Your task to perform on an android device: Go to wifi settings Image 0: 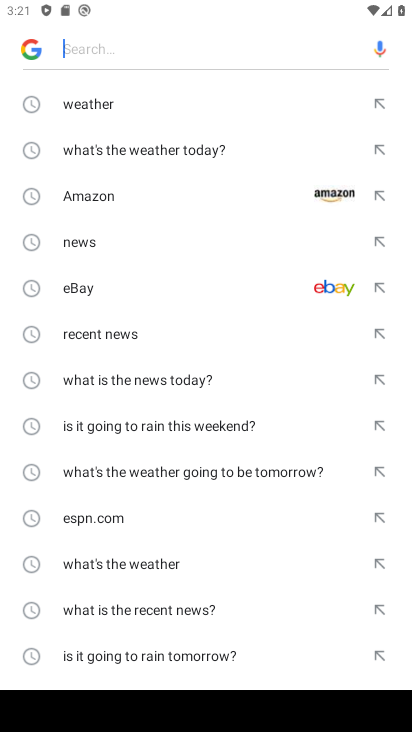
Step 0: press home button
Your task to perform on an android device: Go to wifi settings Image 1: 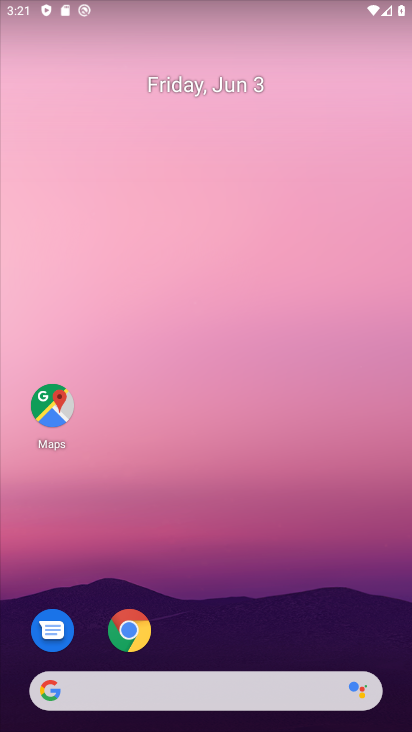
Step 1: drag from (249, 709) to (99, 86)
Your task to perform on an android device: Go to wifi settings Image 2: 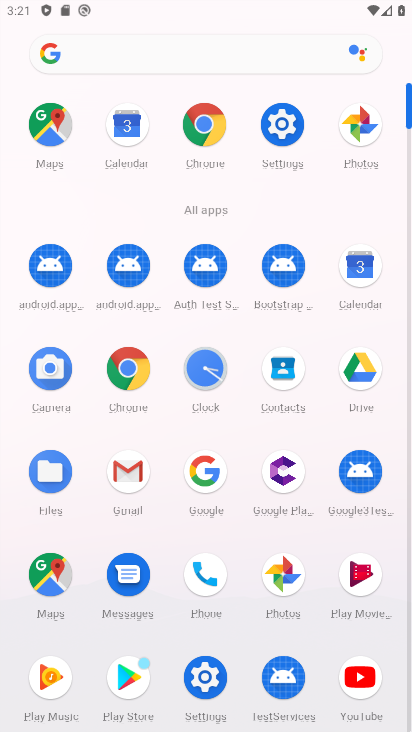
Step 2: click (271, 121)
Your task to perform on an android device: Go to wifi settings Image 3: 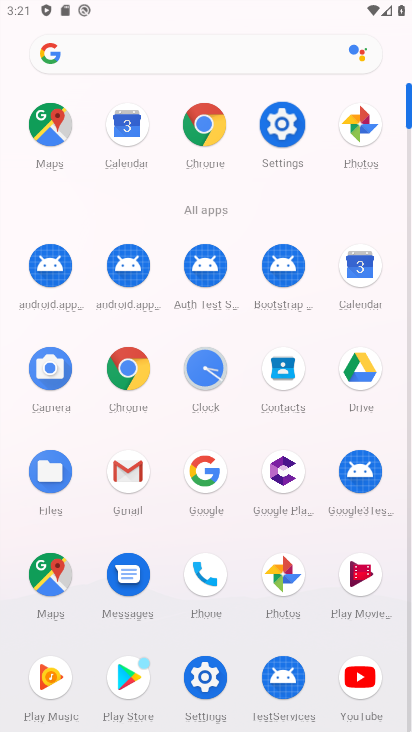
Step 3: click (271, 121)
Your task to perform on an android device: Go to wifi settings Image 4: 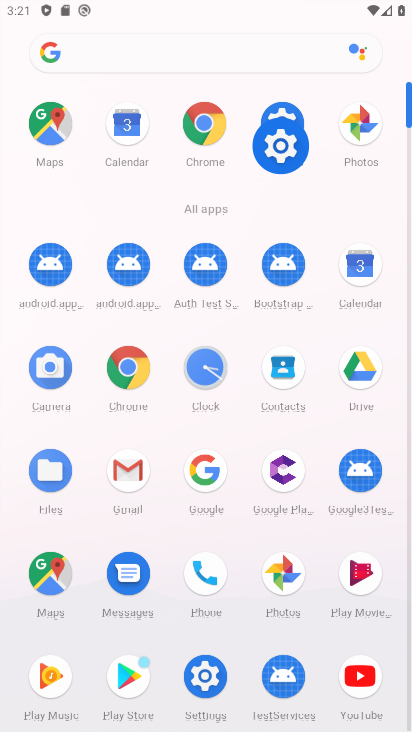
Step 4: click (274, 124)
Your task to perform on an android device: Go to wifi settings Image 5: 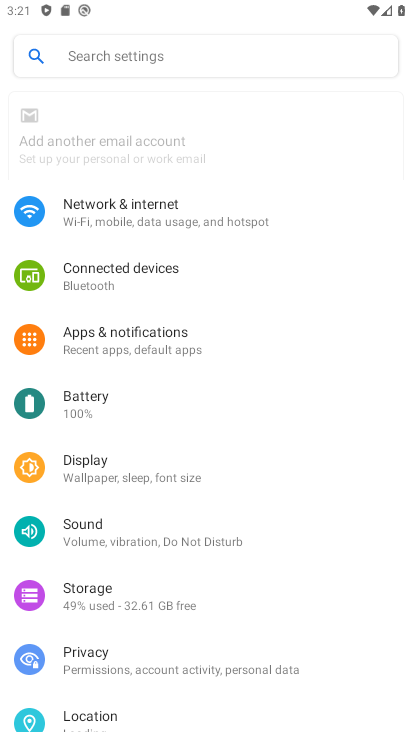
Step 5: click (274, 139)
Your task to perform on an android device: Go to wifi settings Image 6: 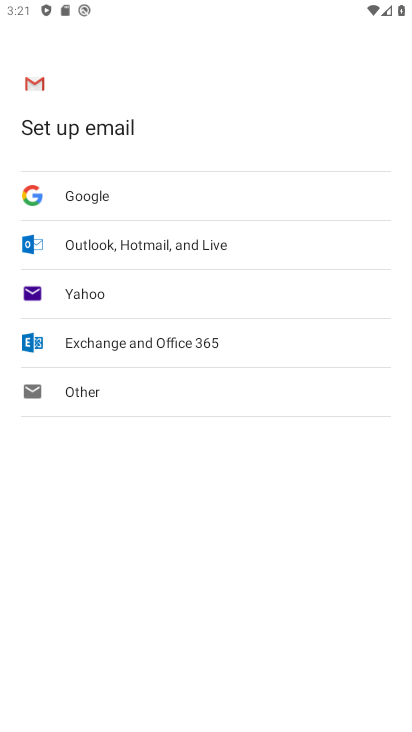
Step 6: press back button
Your task to perform on an android device: Go to wifi settings Image 7: 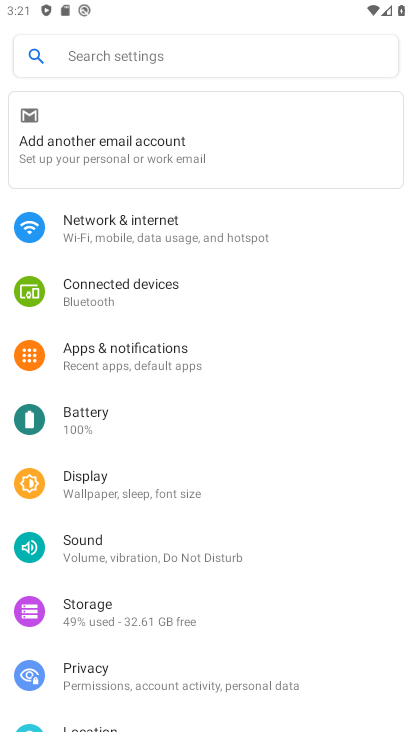
Step 7: click (127, 222)
Your task to perform on an android device: Go to wifi settings Image 8: 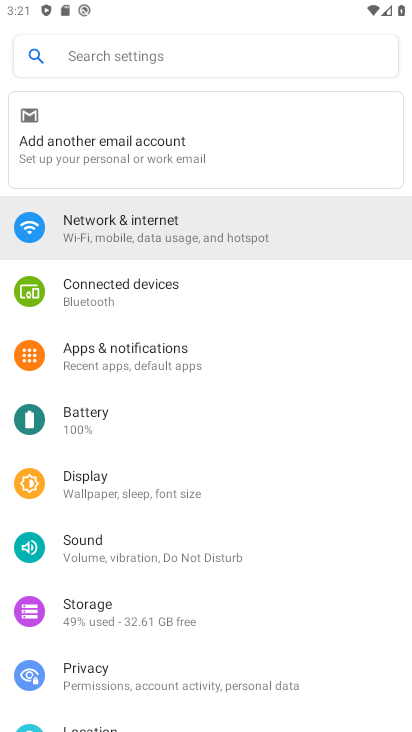
Step 8: click (127, 224)
Your task to perform on an android device: Go to wifi settings Image 9: 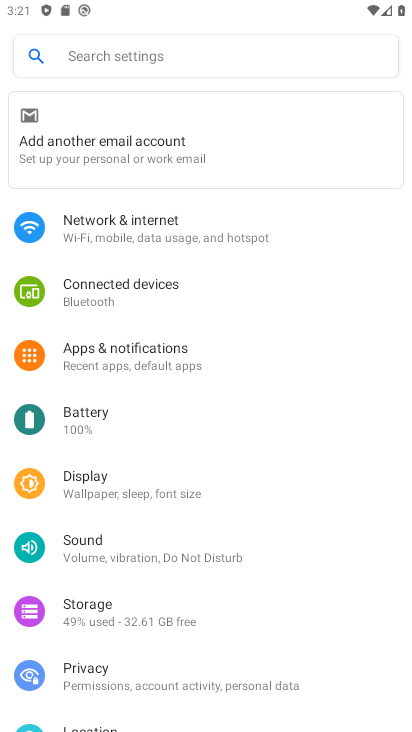
Step 9: click (123, 234)
Your task to perform on an android device: Go to wifi settings Image 10: 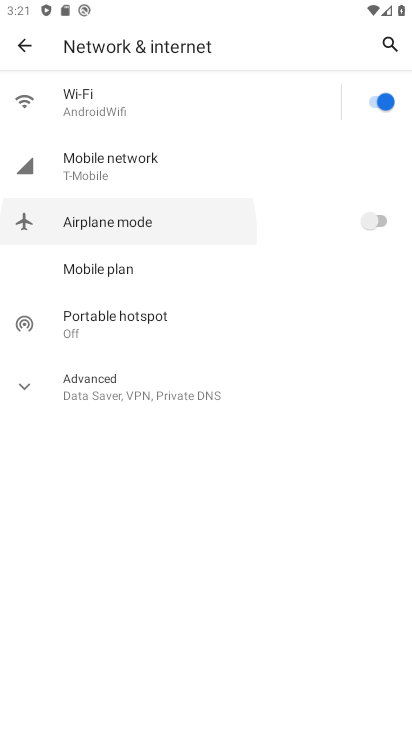
Step 10: click (123, 234)
Your task to perform on an android device: Go to wifi settings Image 11: 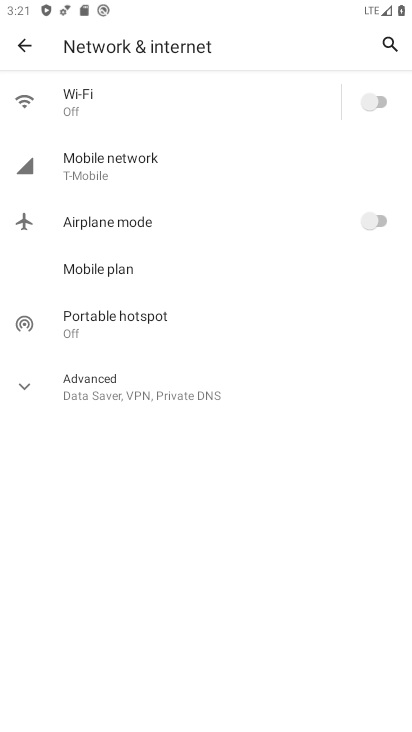
Step 11: click (369, 84)
Your task to perform on an android device: Go to wifi settings Image 12: 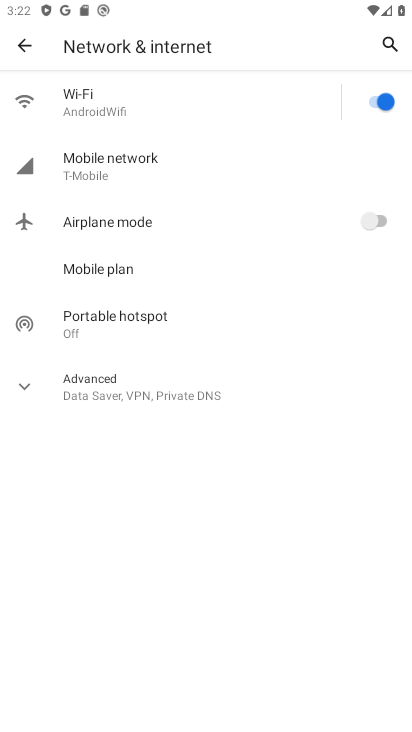
Step 12: task complete